Your task to perform on an android device: Show me popular games on the Play Store Image 0: 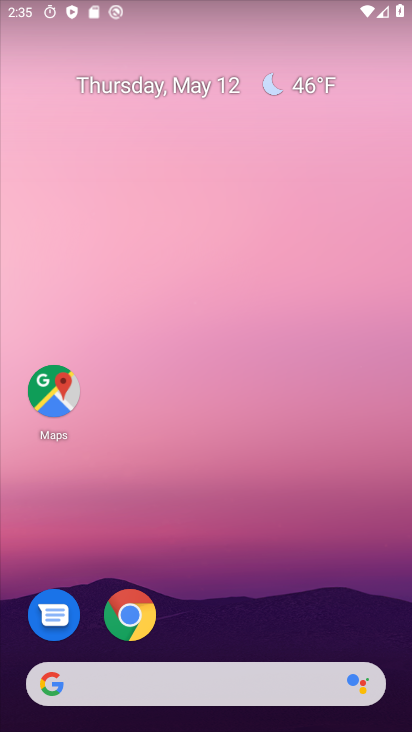
Step 0: drag from (265, 626) to (270, 176)
Your task to perform on an android device: Show me popular games on the Play Store Image 1: 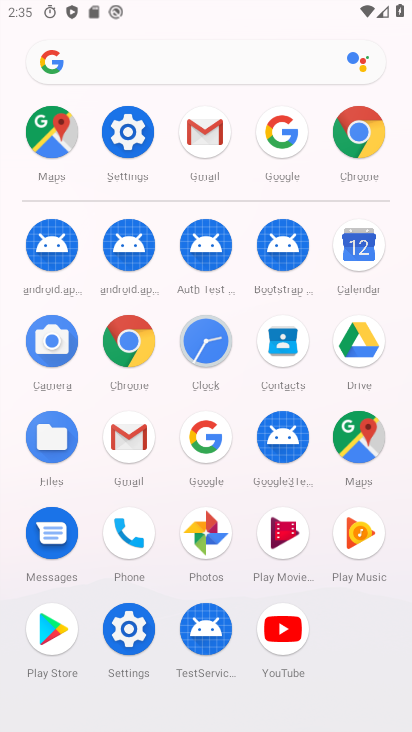
Step 1: click (48, 634)
Your task to perform on an android device: Show me popular games on the Play Store Image 2: 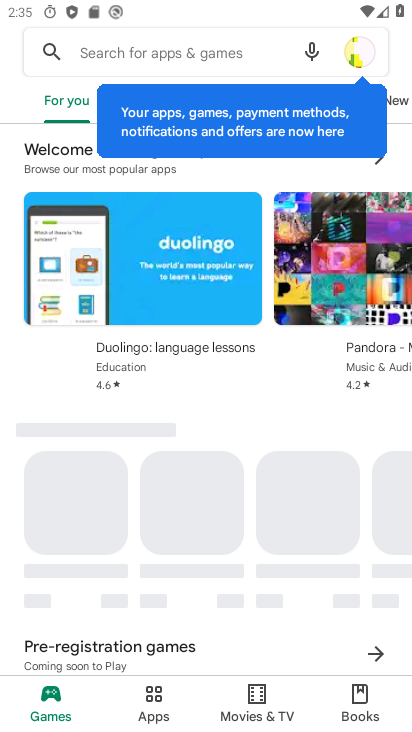
Step 2: drag from (203, 531) to (200, 104)
Your task to perform on an android device: Show me popular games on the Play Store Image 3: 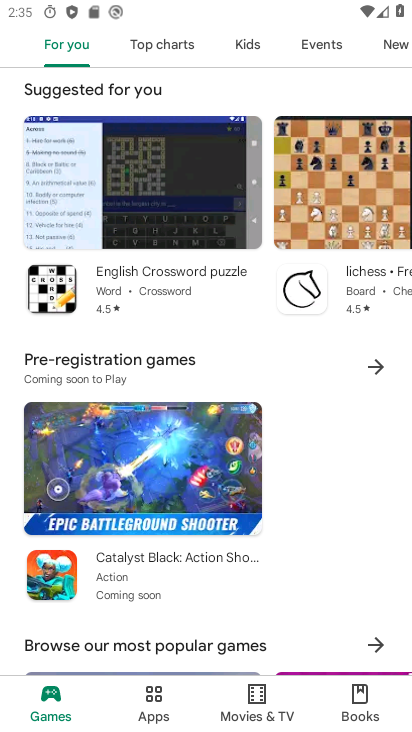
Step 3: drag from (257, 564) to (261, 299)
Your task to perform on an android device: Show me popular games on the Play Store Image 4: 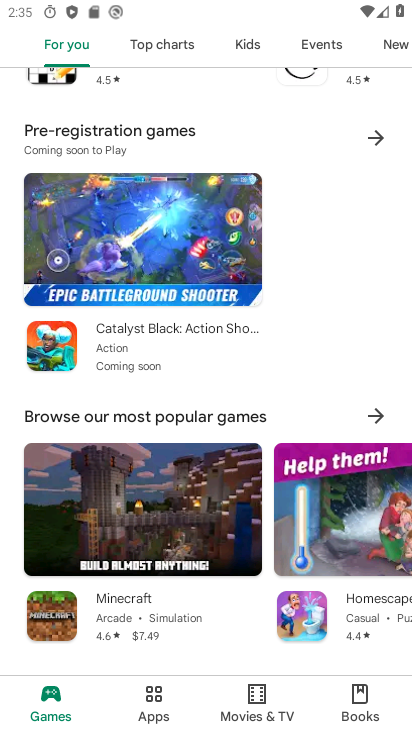
Step 4: click (363, 407)
Your task to perform on an android device: Show me popular games on the Play Store Image 5: 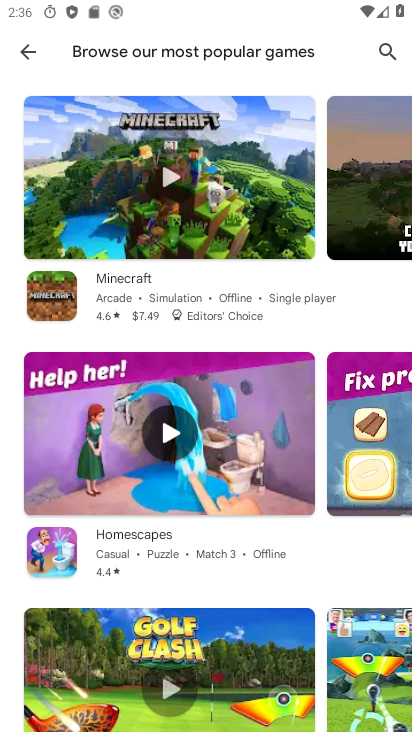
Step 5: task complete